Your task to perform on an android device: Check the news Image 0: 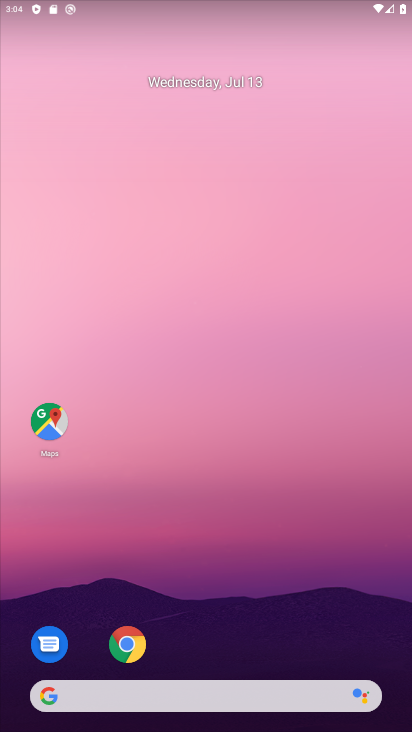
Step 0: drag from (208, 479) to (203, 9)
Your task to perform on an android device: Check the news Image 1: 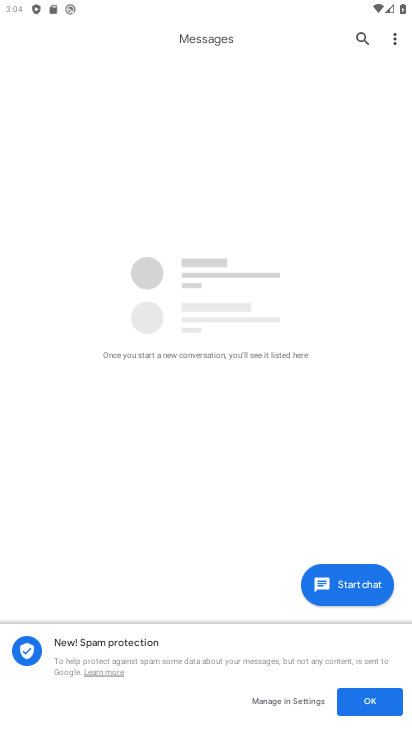
Step 1: press back button
Your task to perform on an android device: Check the news Image 2: 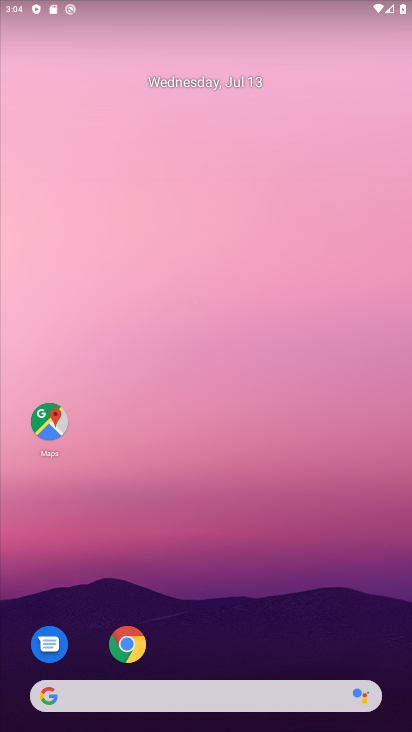
Step 2: drag from (247, 611) to (338, 4)
Your task to perform on an android device: Check the news Image 3: 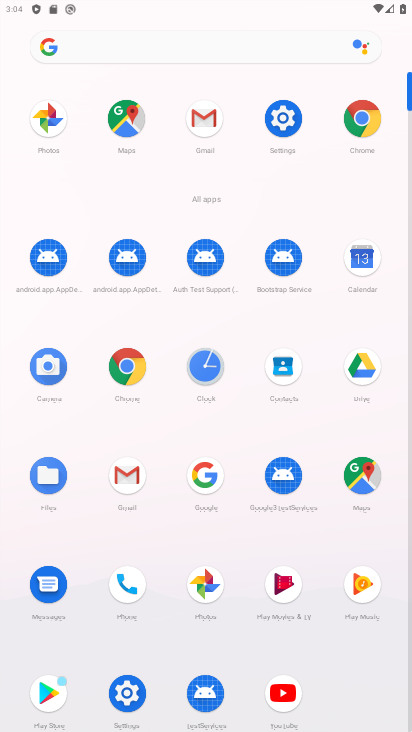
Step 3: click (171, 46)
Your task to perform on an android device: Check the news Image 4: 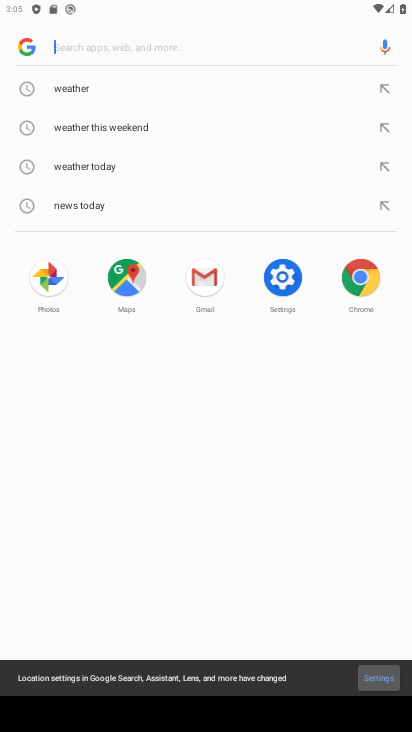
Step 4: click (117, 204)
Your task to perform on an android device: Check the news Image 5: 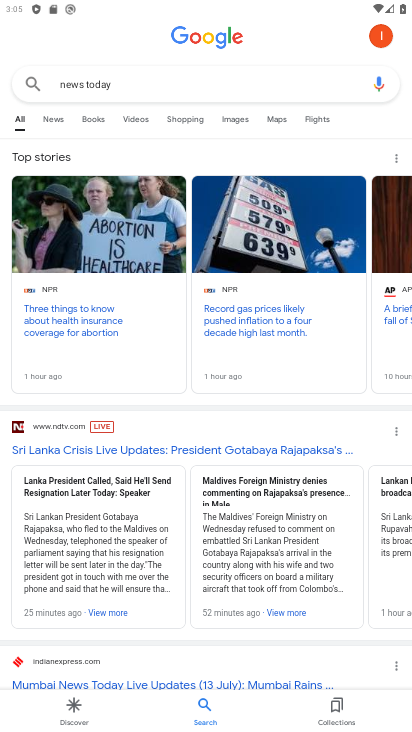
Step 5: task complete